Your task to perform on an android device: turn on bluetooth scan Image 0: 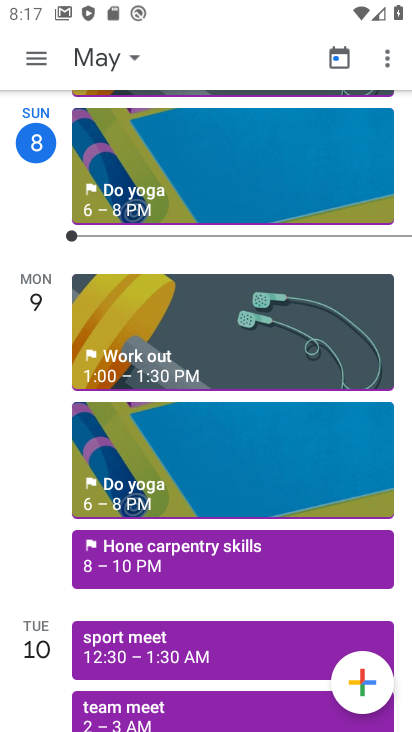
Step 0: press home button
Your task to perform on an android device: turn on bluetooth scan Image 1: 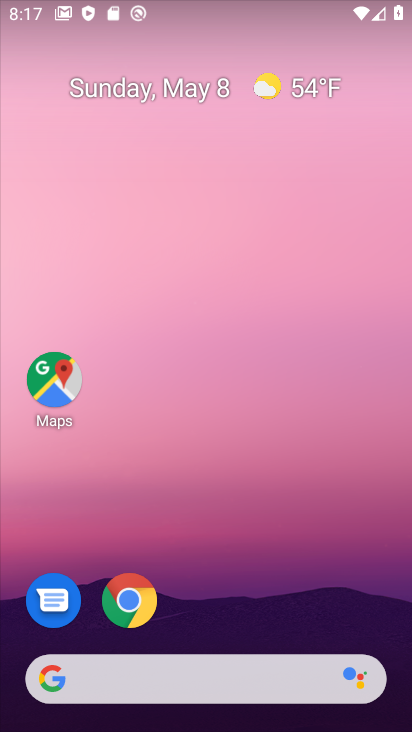
Step 1: drag from (224, 603) to (254, 104)
Your task to perform on an android device: turn on bluetooth scan Image 2: 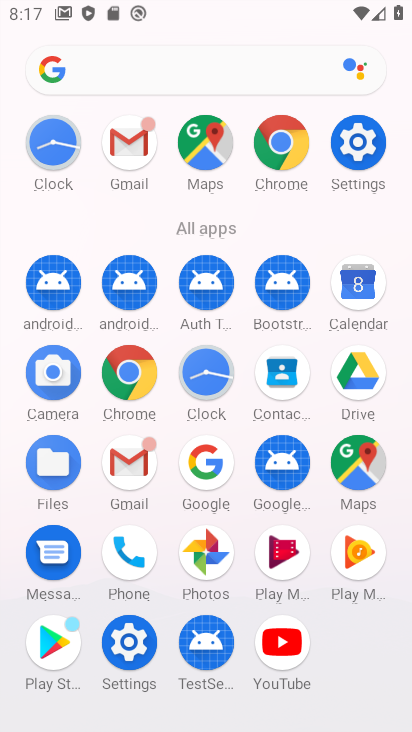
Step 2: click (356, 149)
Your task to perform on an android device: turn on bluetooth scan Image 3: 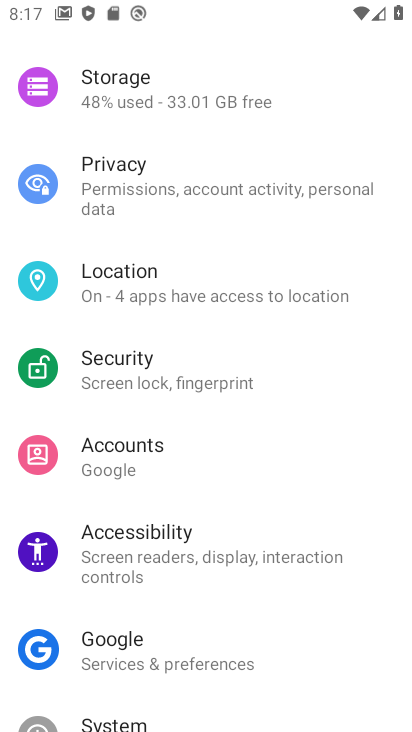
Step 3: click (201, 280)
Your task to perform on an android device: turn on bluetooth scan Image 4: 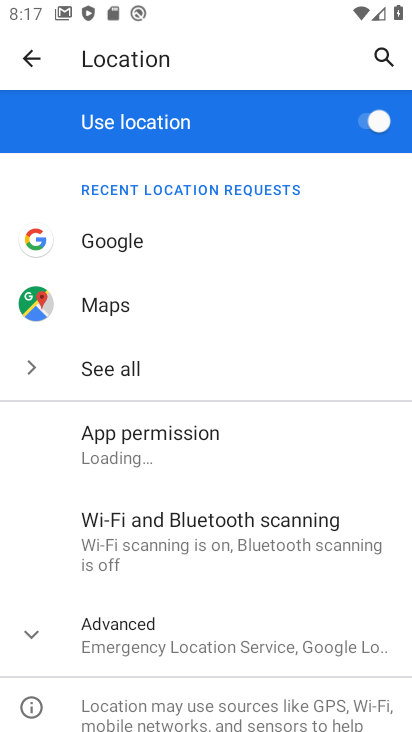
Step 4: click (214, 541)
Your task to perform on an android device: turn on bluetooth scan Image 5: 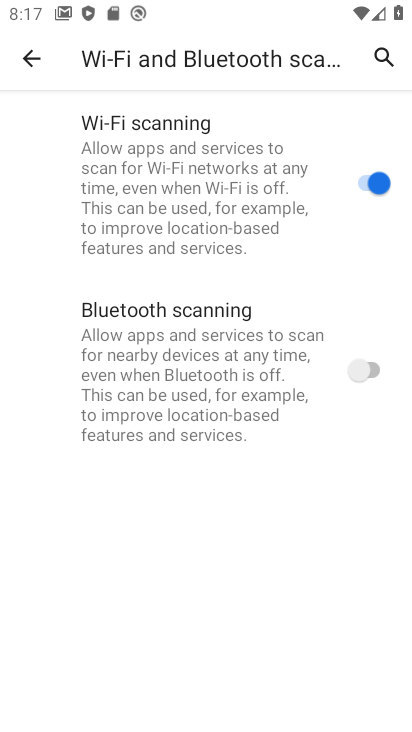
Step 5: click (370, 373)
Your task to perform on an android device: turn on bluetooth scan Image 6: 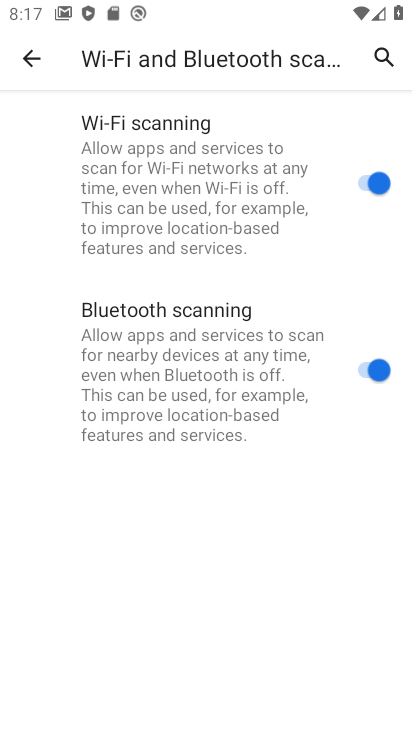
Step 6: task complete